Your task to perform on an android device: toggle airplane mode Image 0: 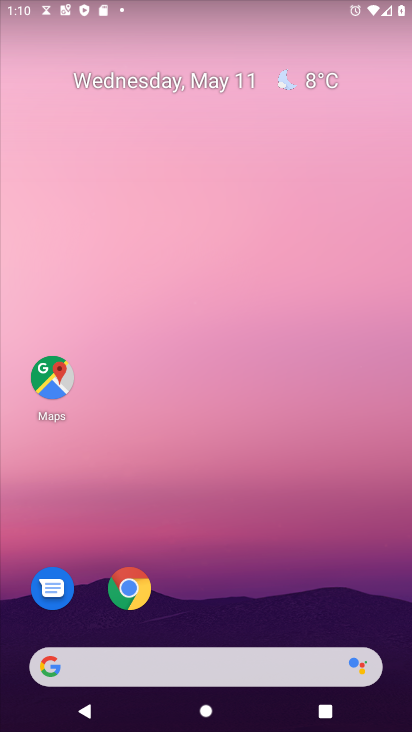
Step 0: drag from (297, 620) to (317, 4)
Your task to perform on an android device: toggle airplane mode Image 1: 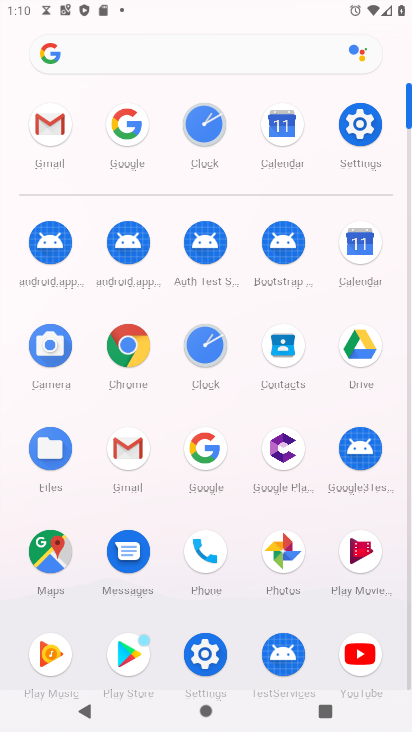
Step 1: click (365, 128)
Your task to perform on an android device: toggle airplane mode Image 2: 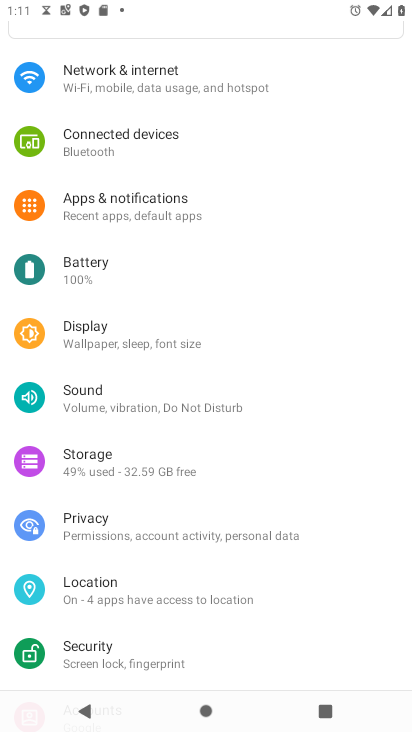
Step 2: click (155, 96)
Your task to perform on an android device: toggle airplane mode Image 3: 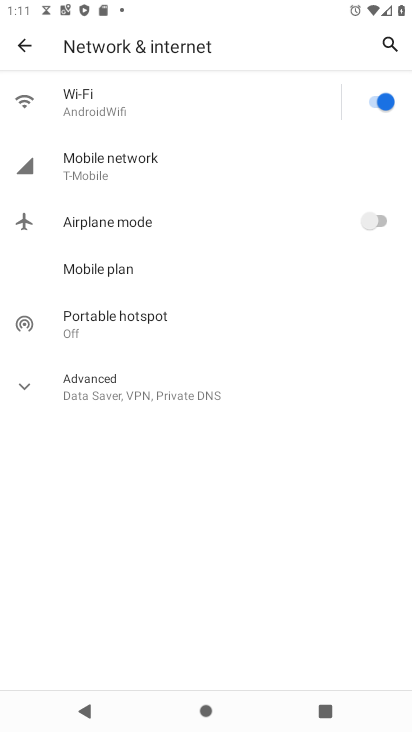
Step 3: click (369, 221)
Your task to perform on an android device: toggle airplane mode Image 4: 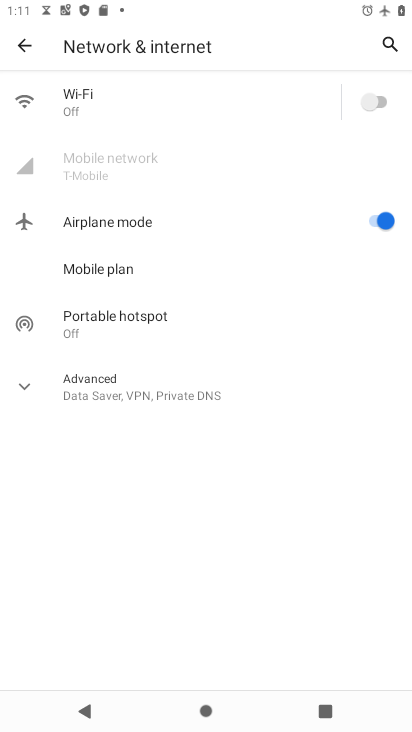
Step 4: task complete